Your task to perform on an android device: Search for "rayovac triple a" on amazon.com, select the first entry, and add it to the cart. Image 0: 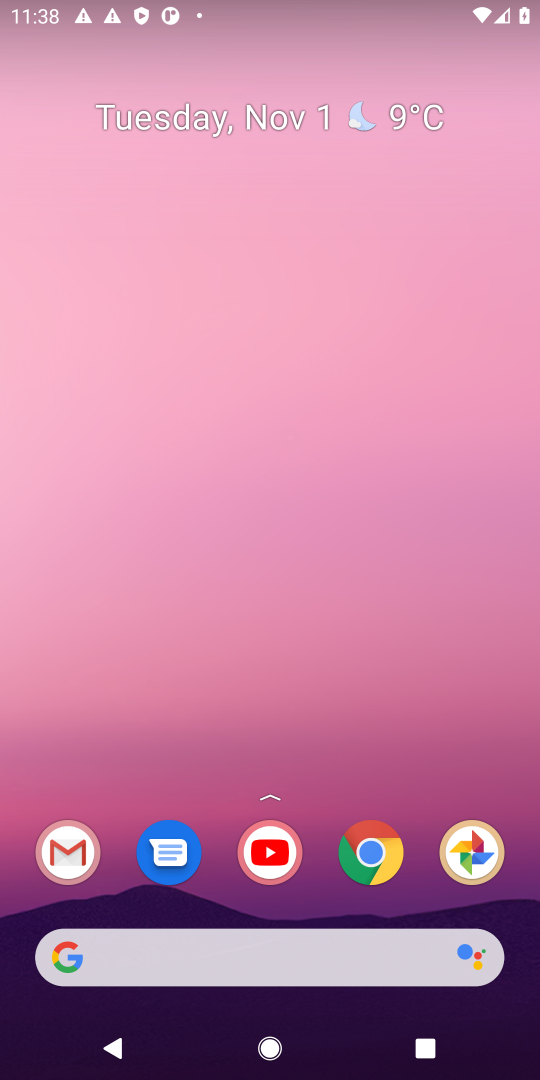
Step 0: drag from (206, 938) to (261, 697)
Your task to perform on an android device: Search for "rayovac triple a" on amazon.com, select the first entry, and add it to the cart. Image 1: 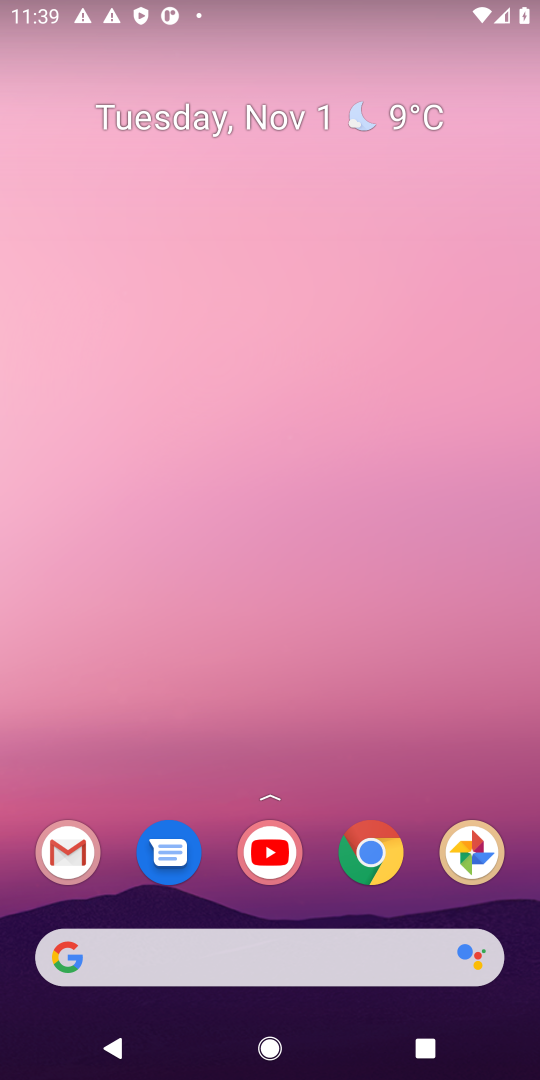
Step 1: click (382, 864)
Your task to perform on an android device: Search for "rayovac triple a" on amazon.com, select the first entry, and add it to the cart. Image 2: 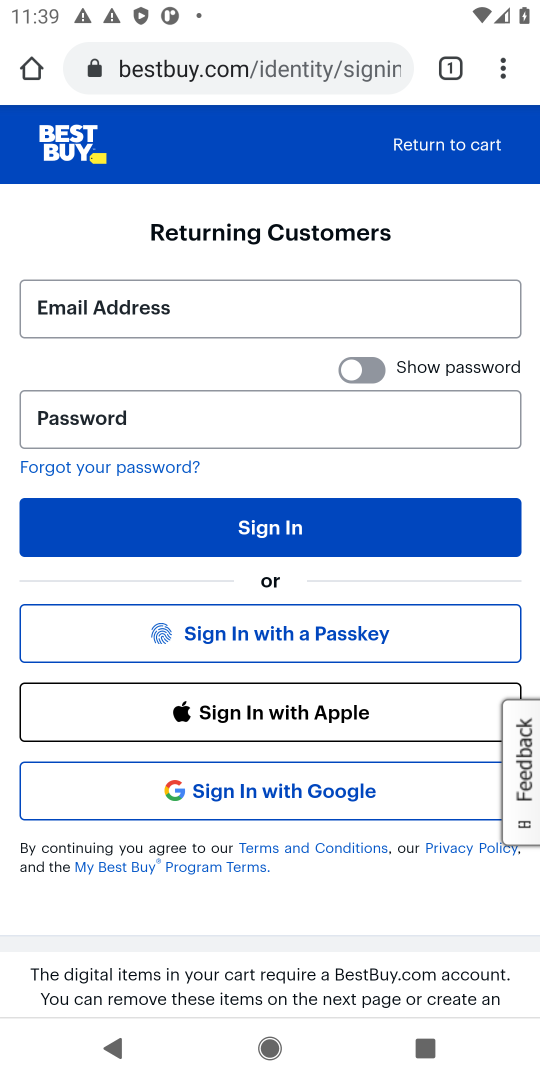
Step 2: click (284, 63)
Your task to perform on an android device: Search for "rayovac triple a" on amazon.com, select the first entry, and add it to the cart. Image 3: 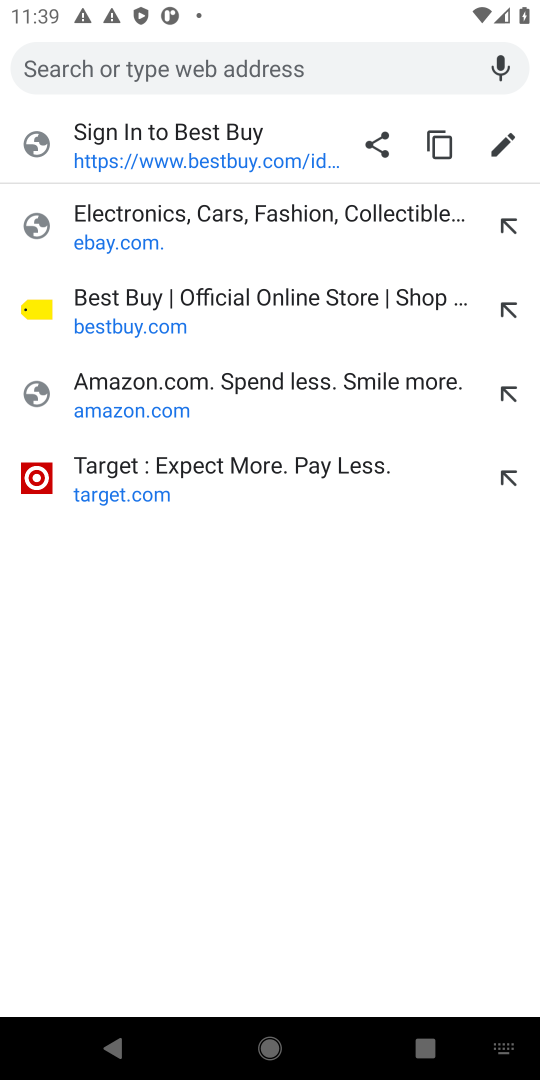
Step 3: type "amazon.com"
Your task to perform on an android device: Search for "rayovac triple a" on amazon.com, select the first entry, and add it to the cart. Image 4: 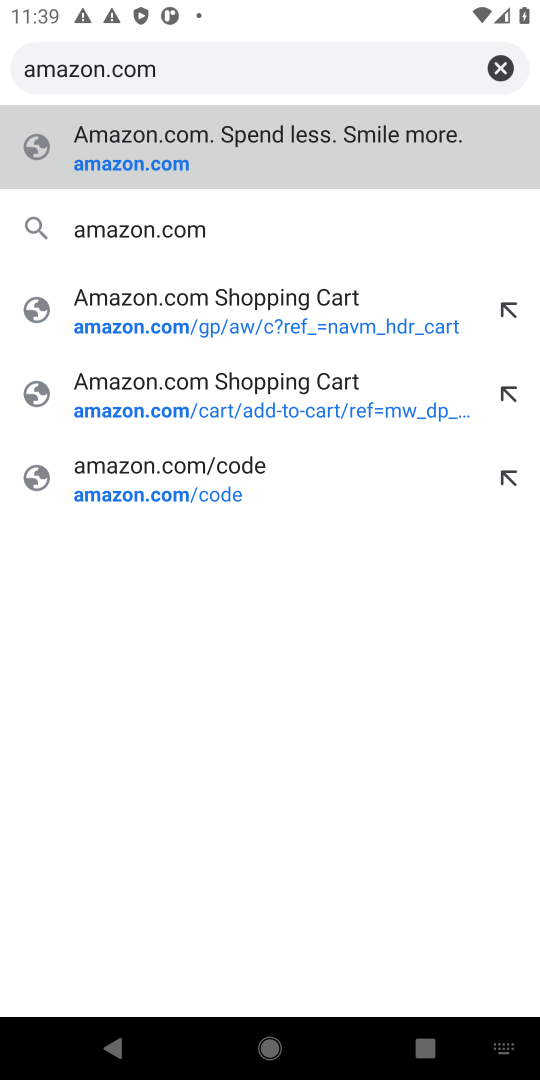
Step 4: click (170, 171)
Your task to perform on an android device: Search for "rayovac triple a" on amazon.com, select the first entry, and add it to the cart. Image 5: 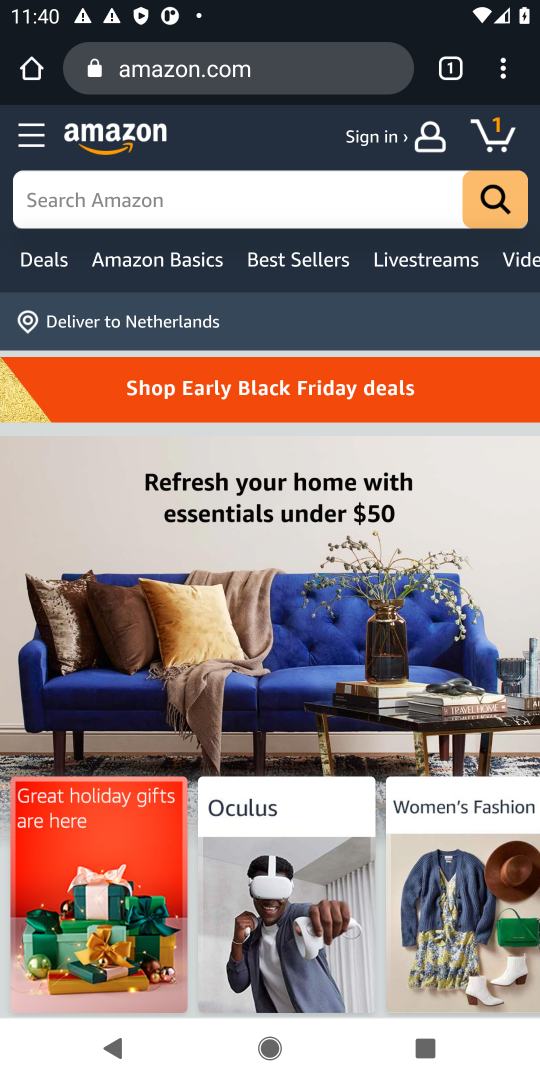
Step 5: click (184, 189)
Your task to perform on an android device: Search for "rayovac triple a" on amazon.com, select the first entry, and add it to the cart. Image 6: 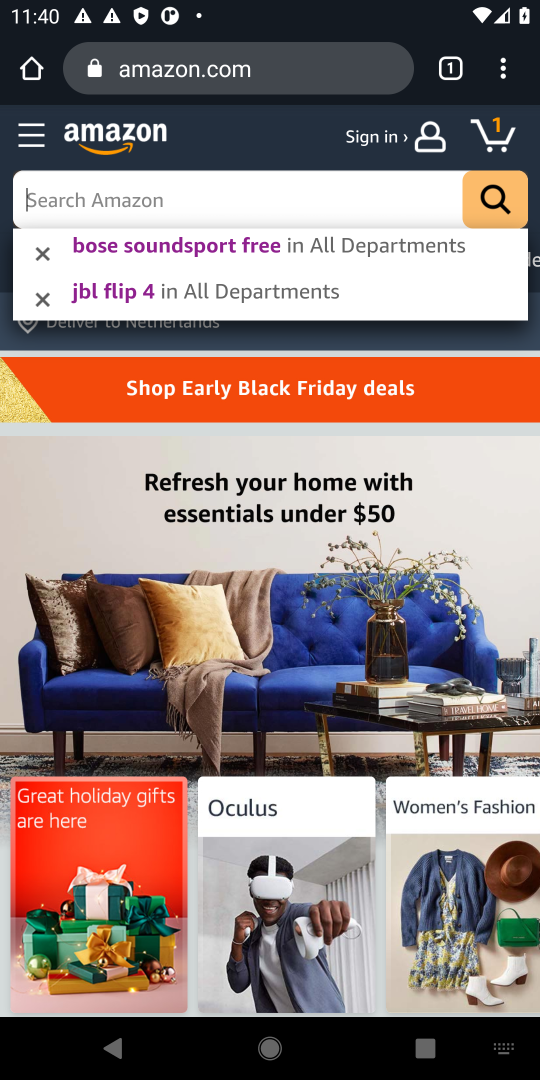
Step 6: type "rayovac triple"
Your task to perform on an android device: Search for "rayovac triple a" on amazon.com, select the first entry, and add it to the cart. Image 7: 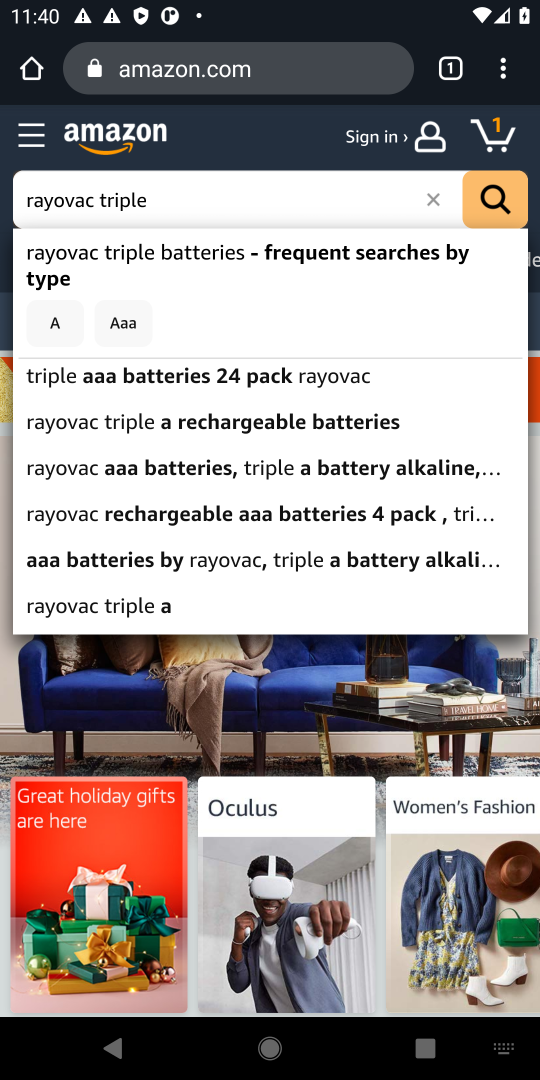
Step 7: click (218, 260)
Your task to perform on an android device: Search for "rayovac triple a" on amazon.com, select the first entry, and add it to the cart. Image 8: 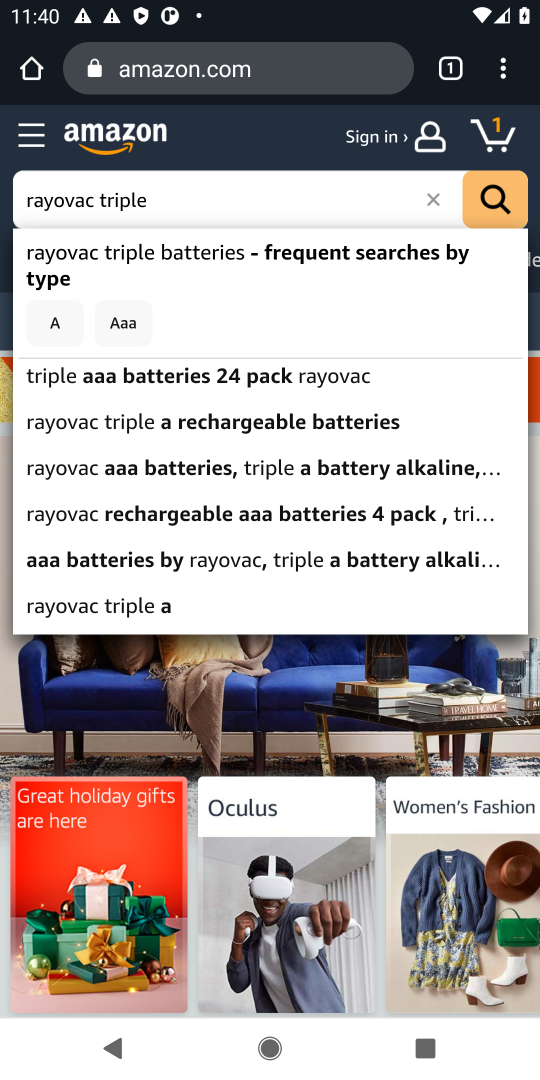
Step 8: click (218, 260)
Your task to perform on an android device: Search for "rayovac triple a" on amazon.com, select the first entry, and add it to the cart. Image 9: 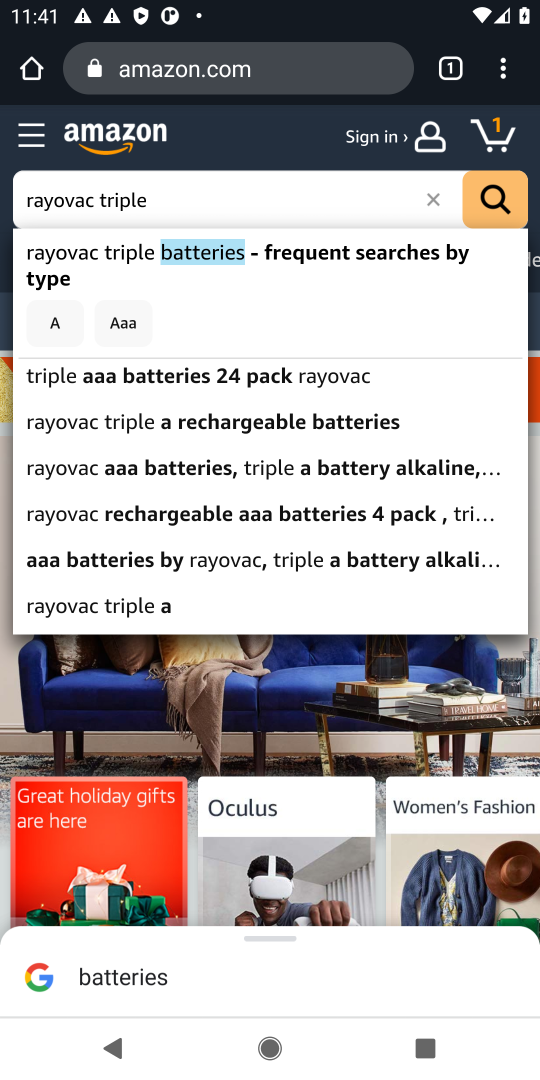
Step 9: click (130, 259)
Your task to perform on an android device: Search for "rayovac triple a" on amazon.com, select the first entry, and add it to the cart. Image 10: 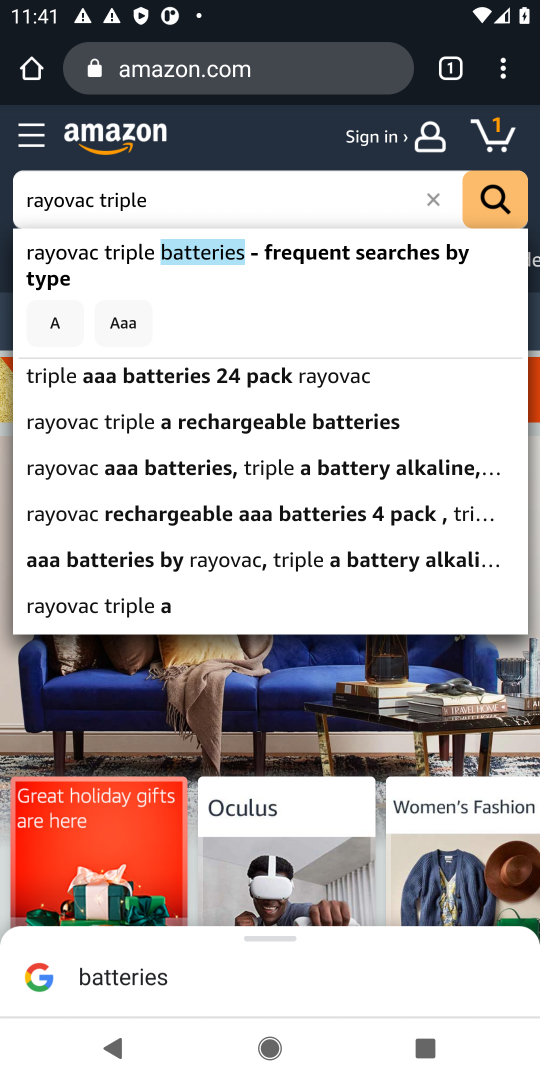
Step 10: click (130, 259)
Your task to perform on an android device: Search for "rayovac triple a" on amazon.com, select the first entry, and add it to the cart. Image 11: 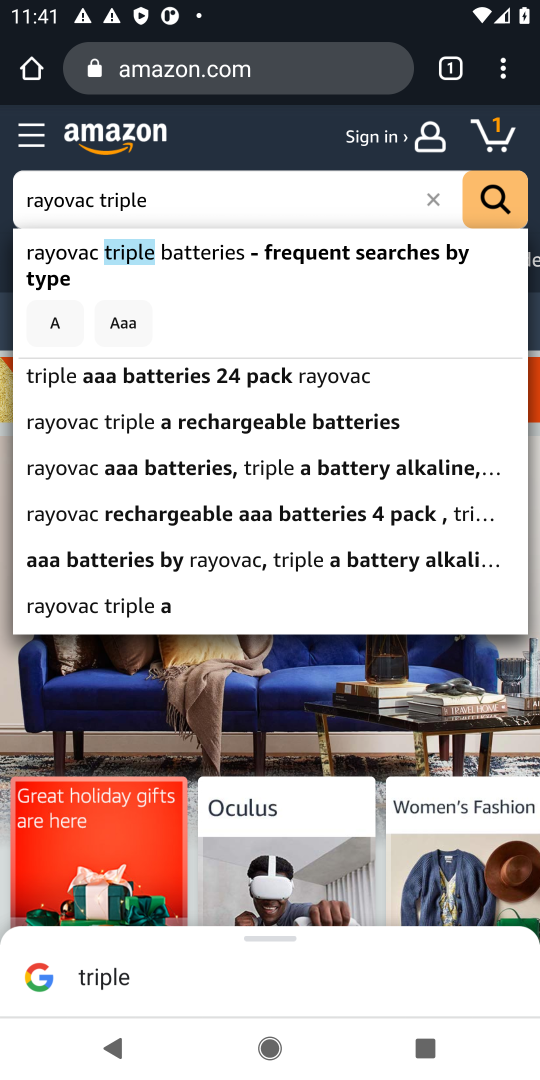
Step 11: click (499, 192)
Your task to perform on an android device: Search for "rayovac triple a" on amazon.com, select the first entry, and add it to the cart. Image 12: 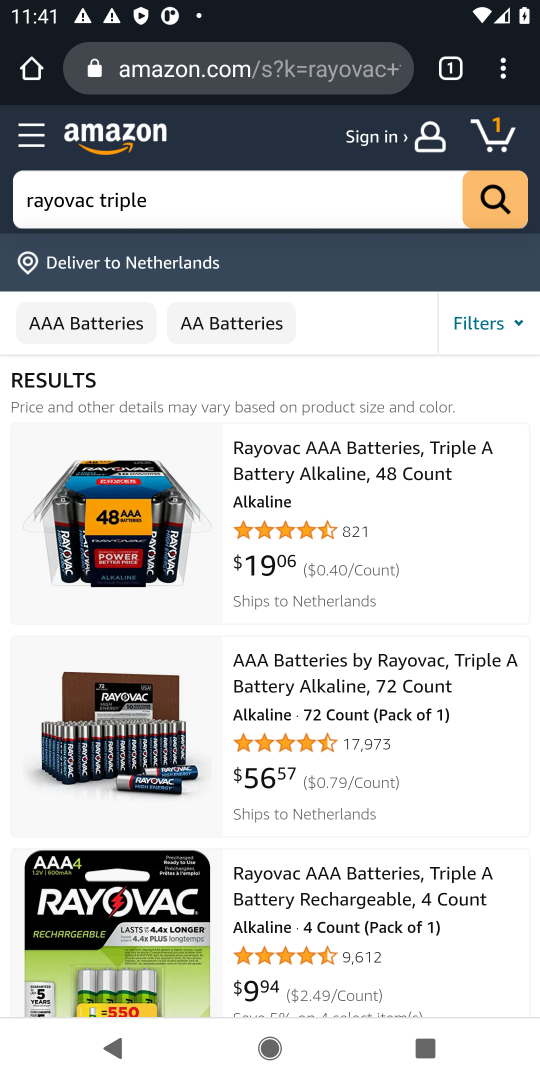
Step 12: click (261, 464)
Your task to perform on an android device: Search for "rayovac triple a" on amazon.com, select the first entry, and add it to the cart. Image 13: 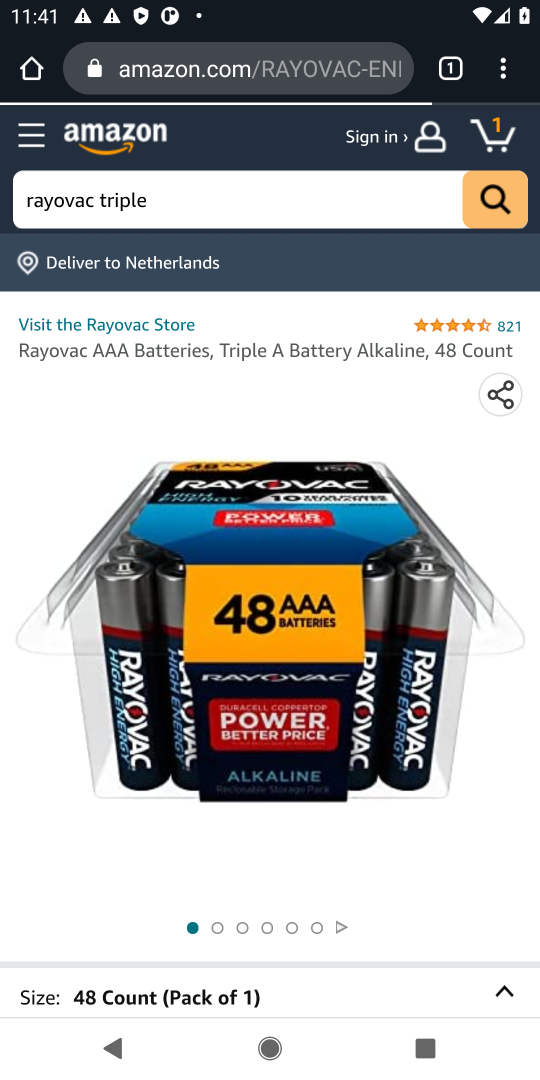
Step 13: drag from (319, 835) to (343, 88)
Your task to perform on an android device: Search for "rayovac triple a" on amazon.com, select the first entry, and add it to the cart. Image 14: 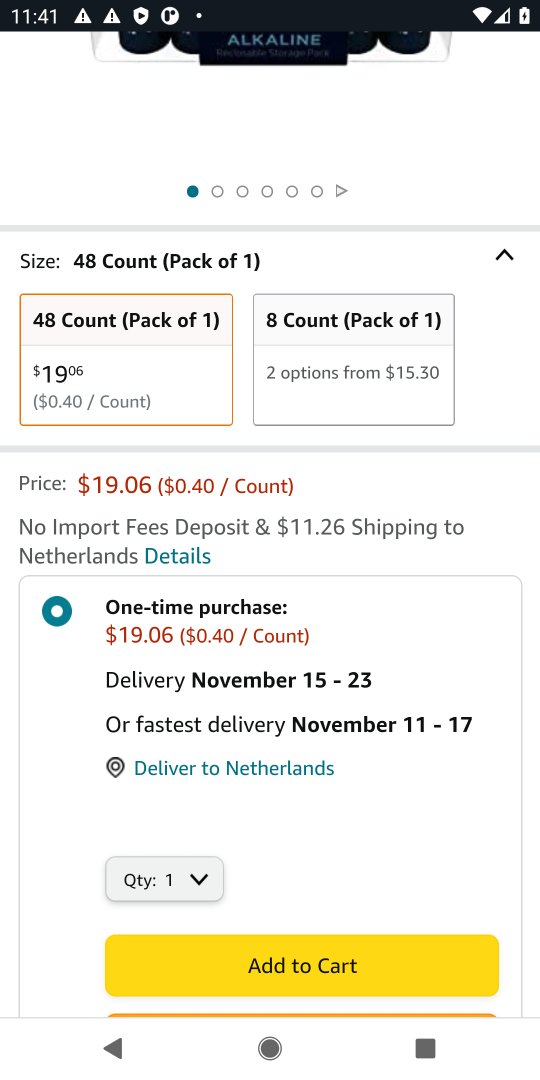
Step 14: drag from (430, 850) to (426, 516)
Your task to perform on an android device: Search for "rayovac triple a" on amazon.com, select the first entry, and add it to the cart. Image 15: 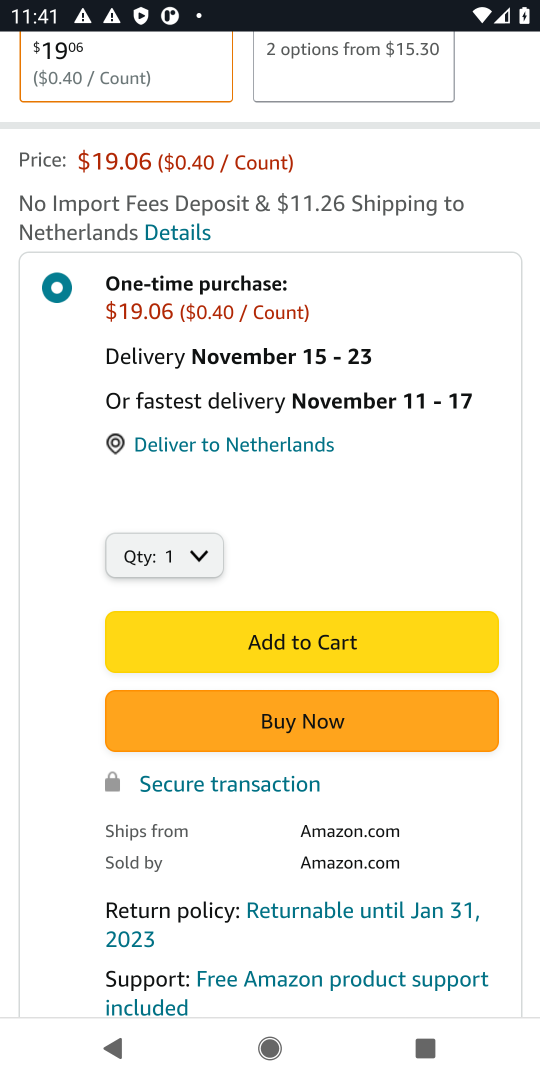
Step 15: click (274, 655)
Your task to perform on an android device: Search for "rayovac triple a" on amazon.com, select the first entry, and add it to the cart. Image 16: 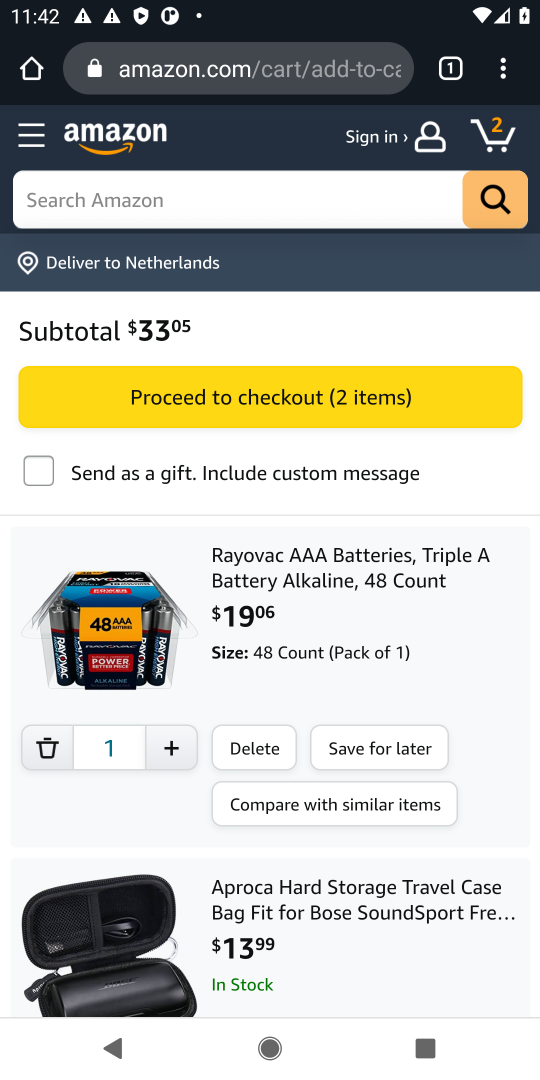
Step 16: task complete